Your task to perform on an android device: Do I have any events tomorrow? Image 0: 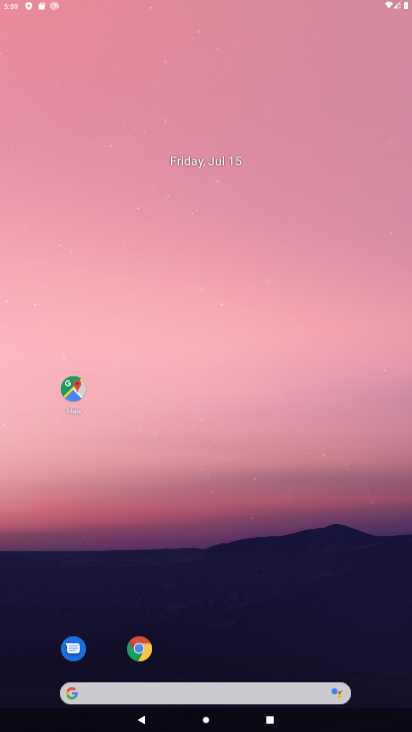
Step 0: press home button
Your task to perform on an android device: Do I have any events tomorrow? Image 1: 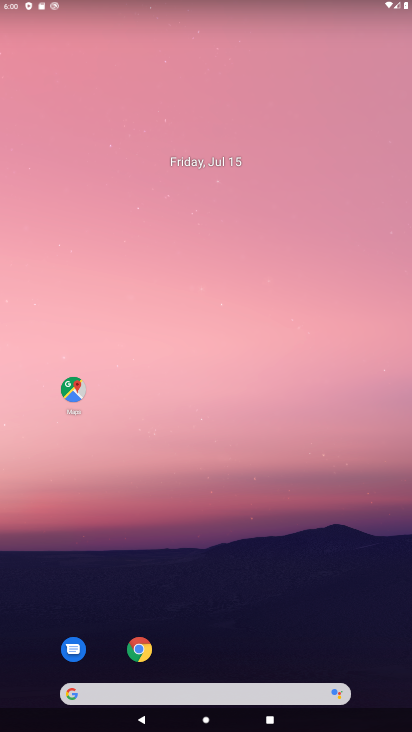
Step 1: drag from (273, 543) to (345, 153)
Your task to perform on an android device: Do I have any events tomorrow? Image 2: 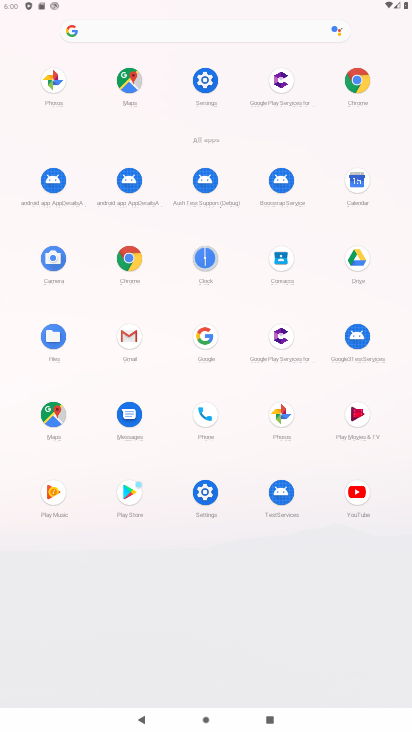
Step 2: click (358, 185)
Your task to perform on an android device: Do I have any events tomorrow? Image 3: 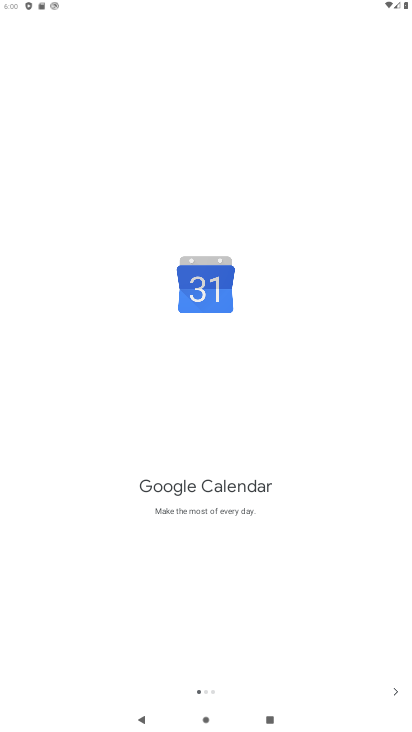
Step 3: click (396, 694)
Your task to perform on an android device: Do I have any events tomorrow? Image 4: 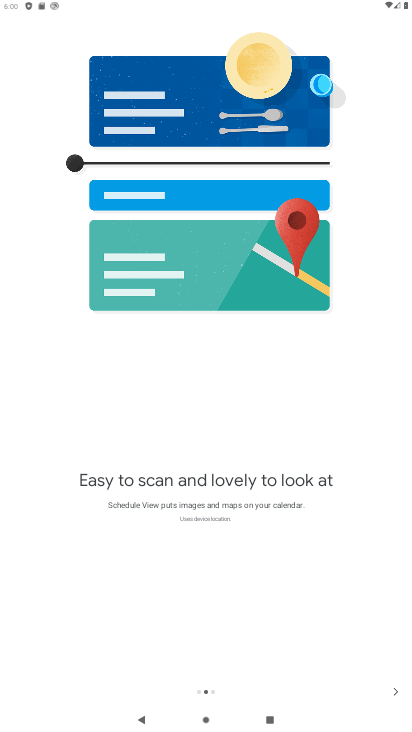
Step 4: click (396, 694)
Your task to perform on an android device: Do I have any events tomorrow? Image 5: 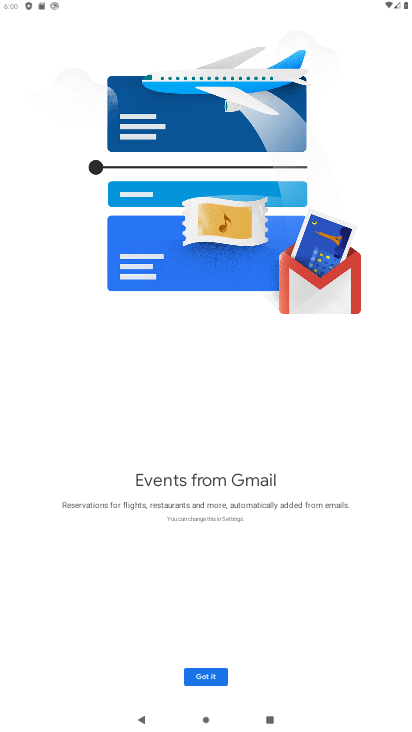
Step 5: click (396, 694)
Your task to perform on an android device: Do I have any events tomorrow? Image 6: 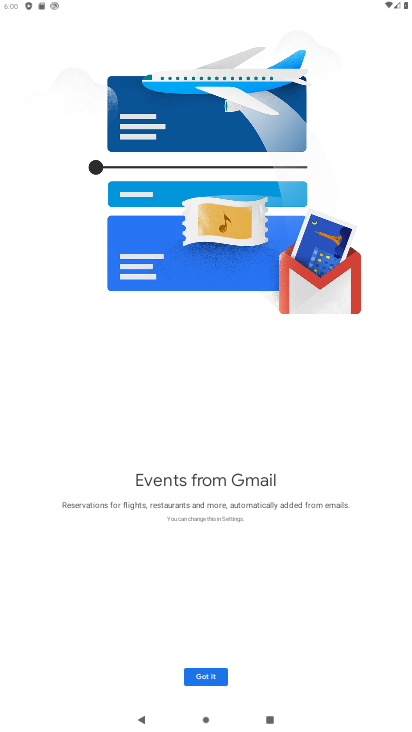
Step 6: click (214, 668)
Your task to perform on an android device: Do I have any events tomorrow? Image 7: 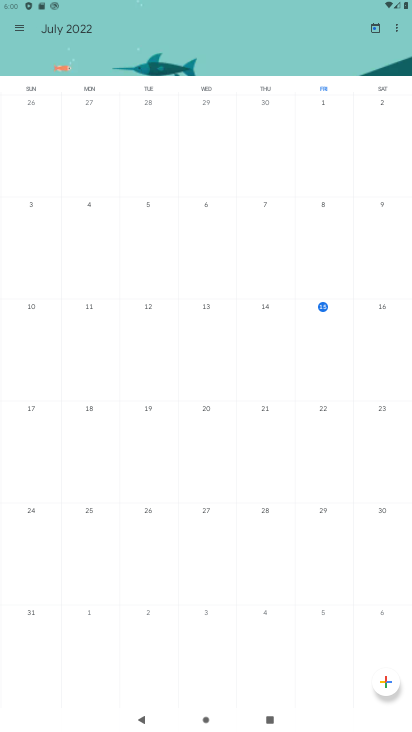
Step 7: click (384, 308)
Your task to perform on an android device: Do I have any events tomorrow? Image 8: 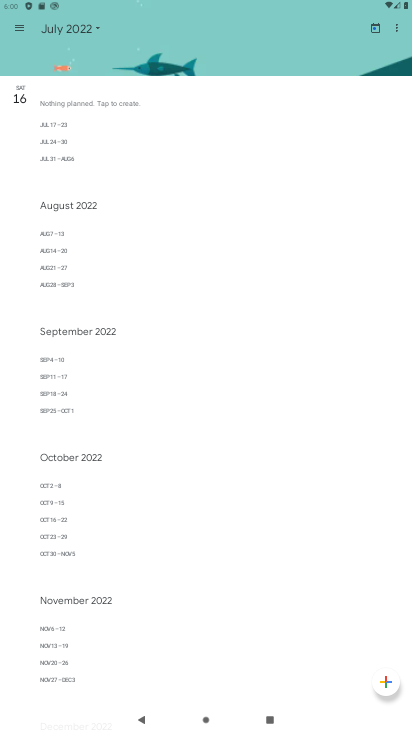
Step 8: task complete